Your task to perform on an android device: Search for seafood restaurants on Google Maps Image 0: 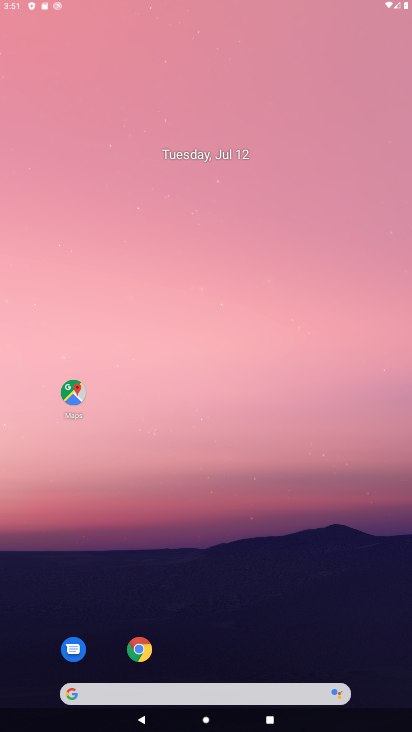
Step 0: press home button
Your task to perform on an android device: Search for seafood restaurants on Google Maps Image 1: 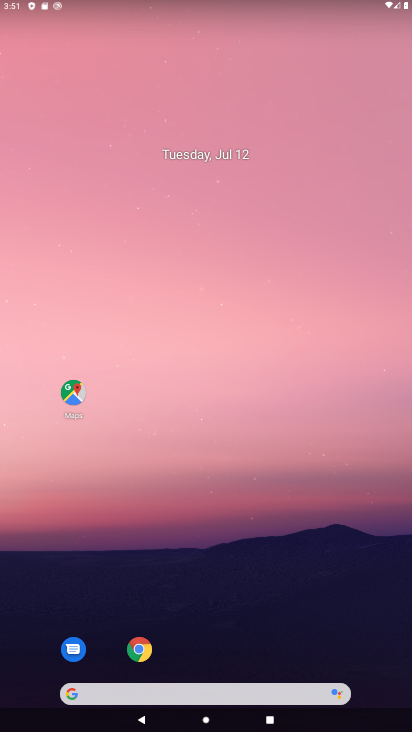
Step 1: click (70, 389)
Your task to perform on an android device: Search for seafood restaurants on Google Maps Image 2: 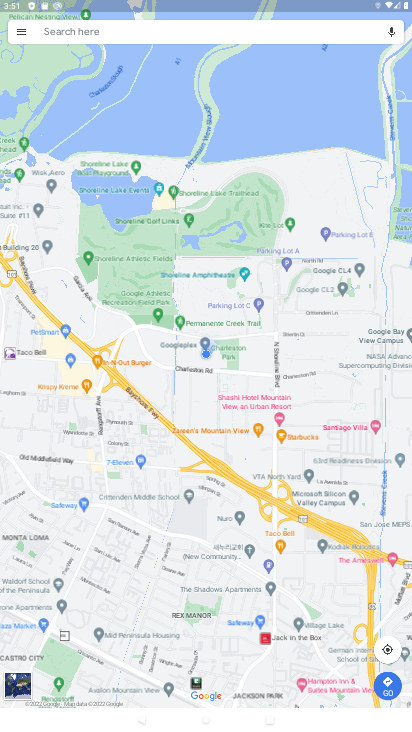
Step 2: click (52, 27)
Your task to perform on an android device: Search for seafood restaurants on Google Maps Image 3: 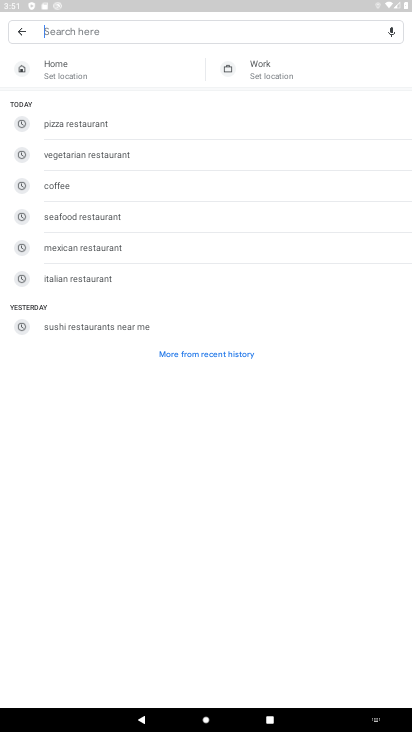
Step 3: type "seafood"
Your task to perform on an android device: Search for seafood restaurants on Google Maps Image 4: 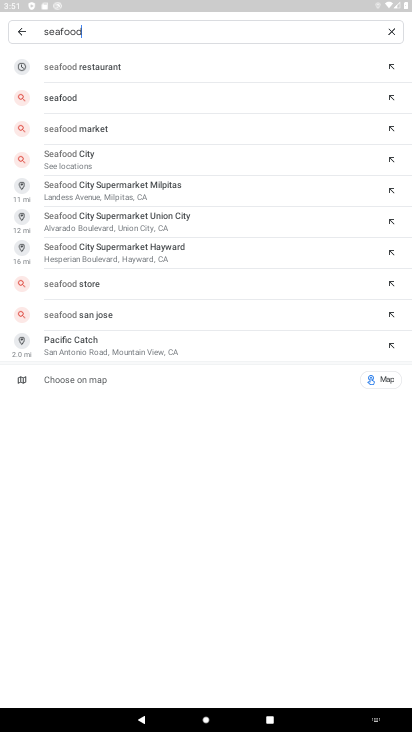
Step 4: click (103, 69)
Your task to perform on an android device: Search for seafood restaurants on Google Maps Image 5: 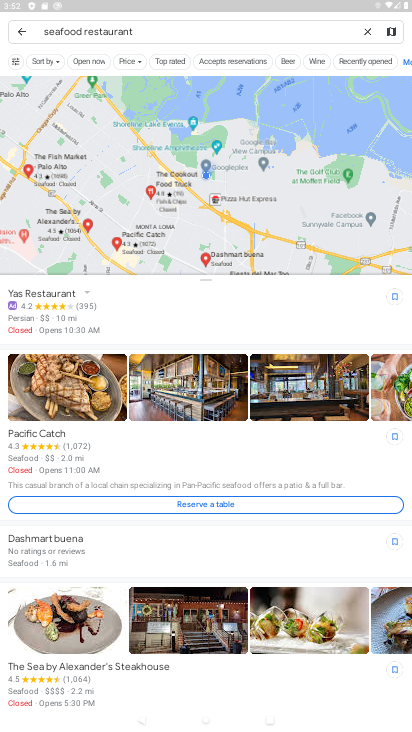
Step 5: task complete